Your task to perform on an android device: Open the SMS app Image 0: 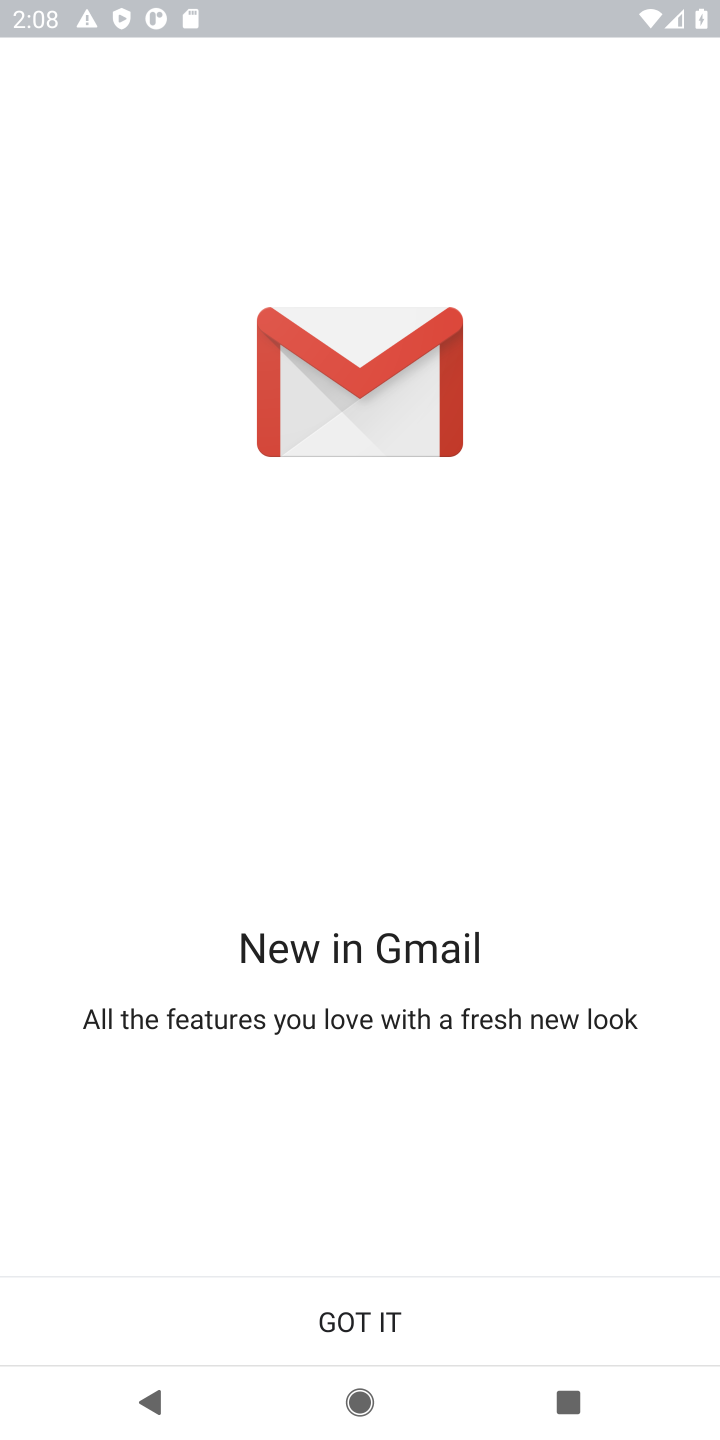
Step 0: press home button
Your task to perform on an android device: Open the SMS app Image 1: 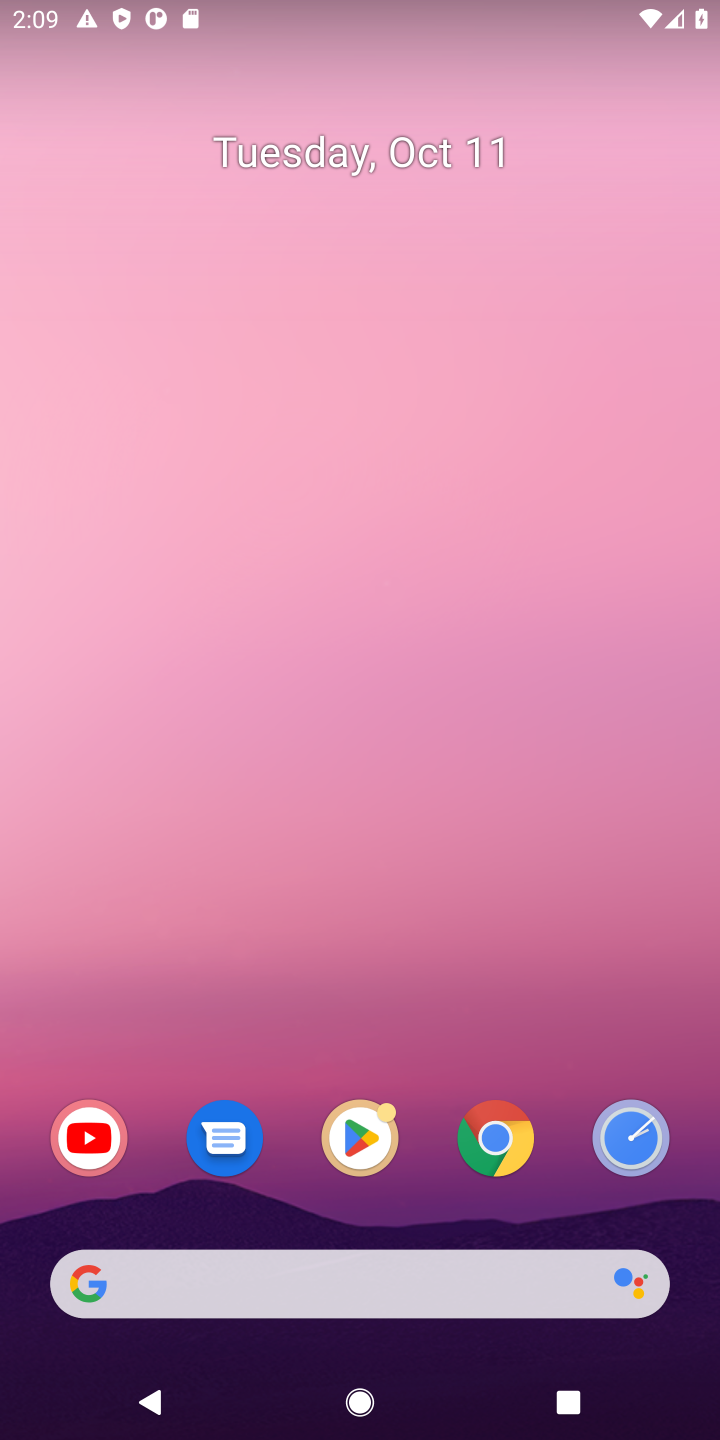
Step 1: click (221, 1140)
Your task to perform on an android device: Open the SMS app Image 2: 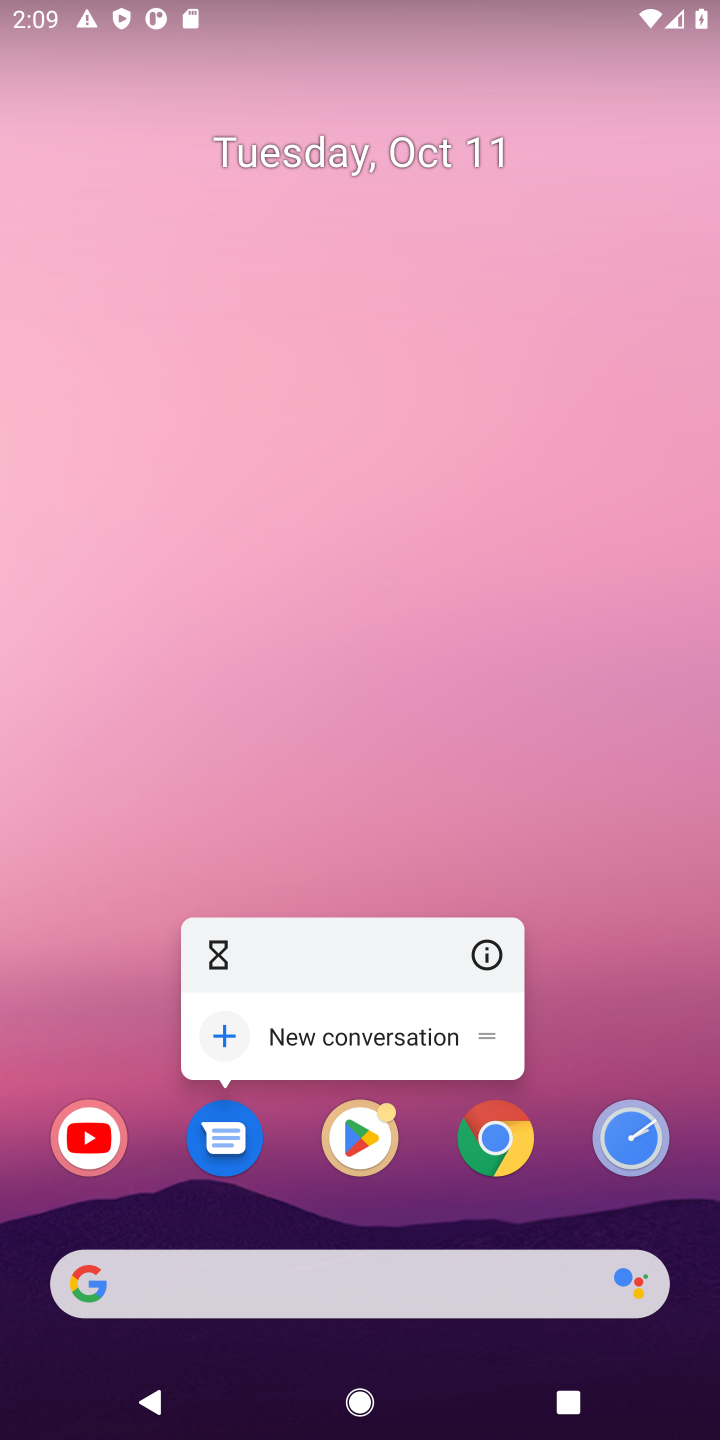
Step 2: click (242, 1131)
Your task to perform on an android device: Open the SMS app Image 3: 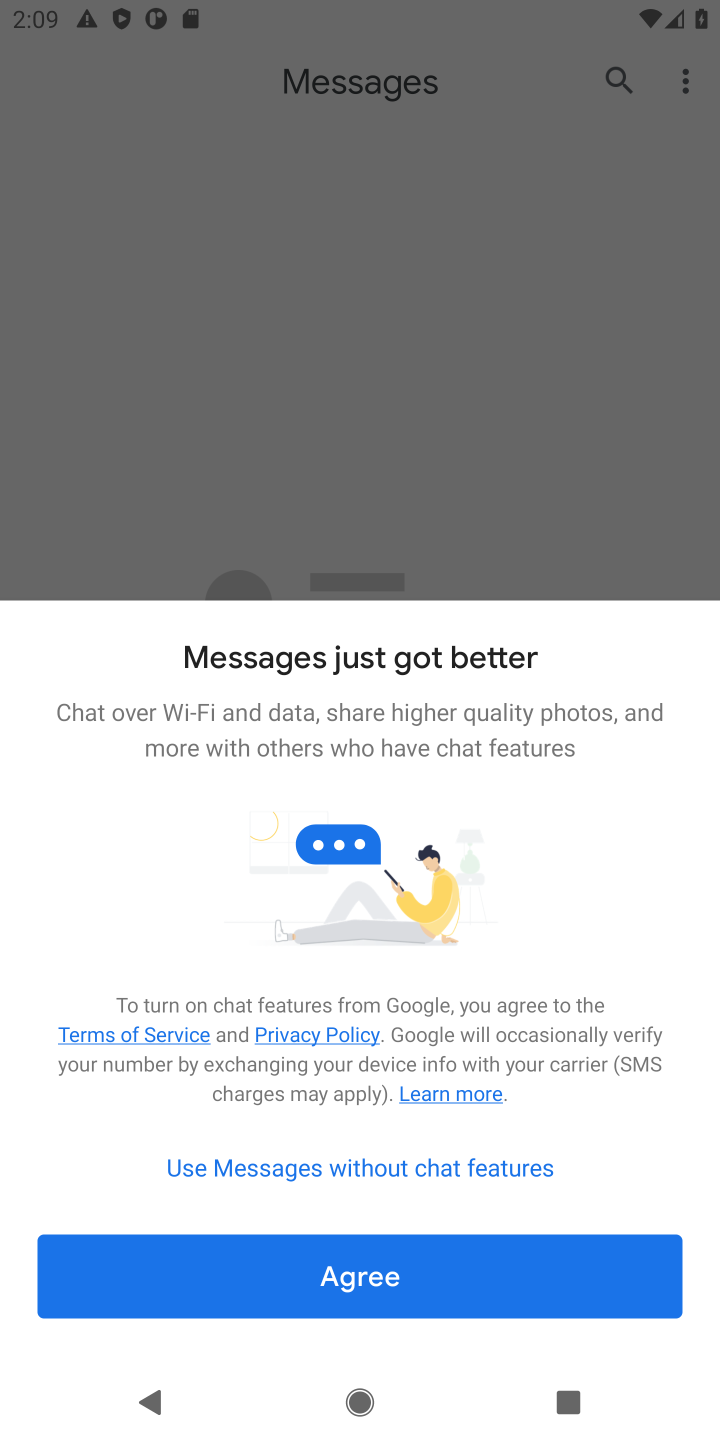
Step 3: task complete